Your task to perform on an android device: Open battery settings Image 0: 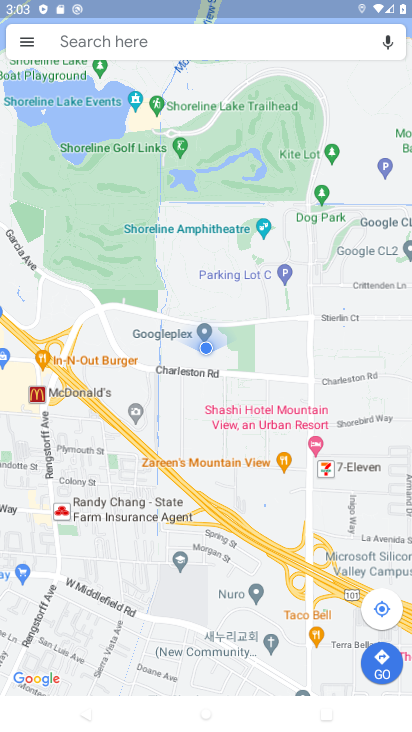
Step 0: press home button
Your task to perform on an android device: Open battery settings Image 1: 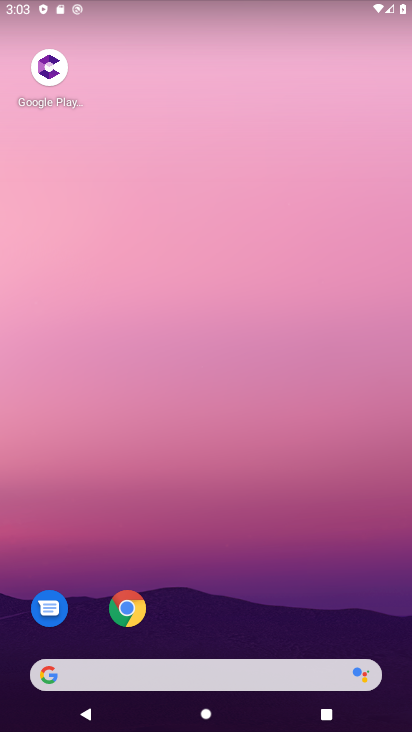
Step 1: drag from (196, 621) to (157, 207)
Your task to perform on an android device: Open battery settings Image 2: 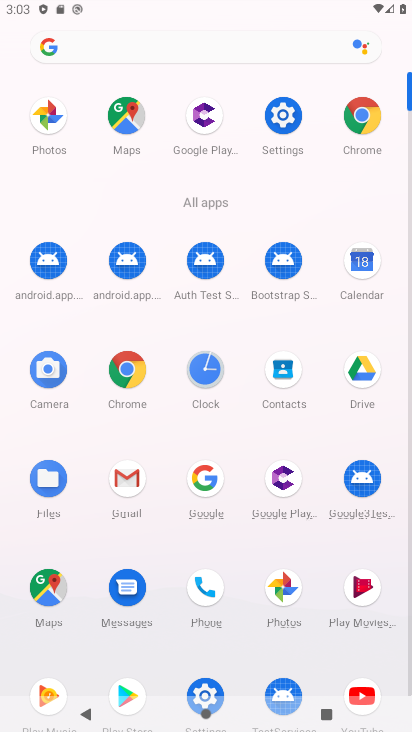
Step 2: click (204, 688)
Your task to perform on an android device: Open battery settings Image 3: 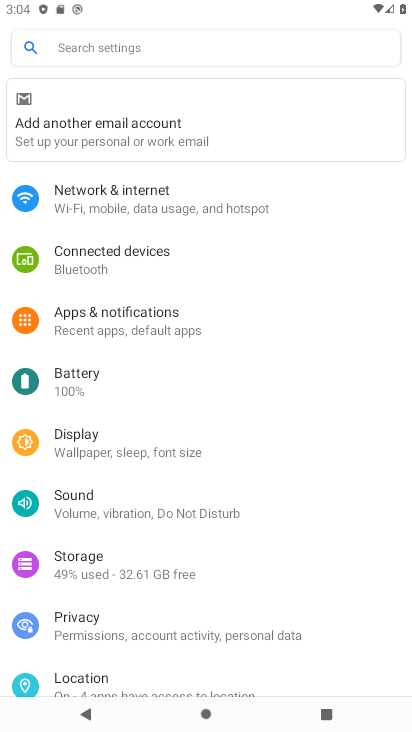
Step 3: click (92, 385)
Your task to perform on an android device: Open battery settings Image 4: 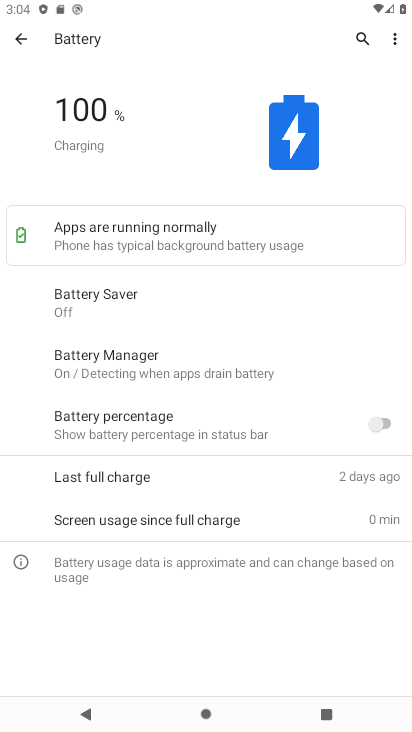
Step 4: task complete